Your task to perform on an android device: check the backup settings in the google photos Image 0: 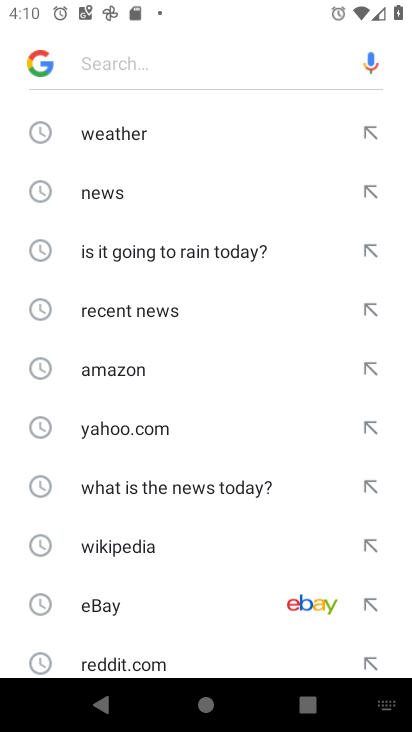
Step 0: press home button
Your task to perform on an android device: check the backup settings in the google photos Image 1: 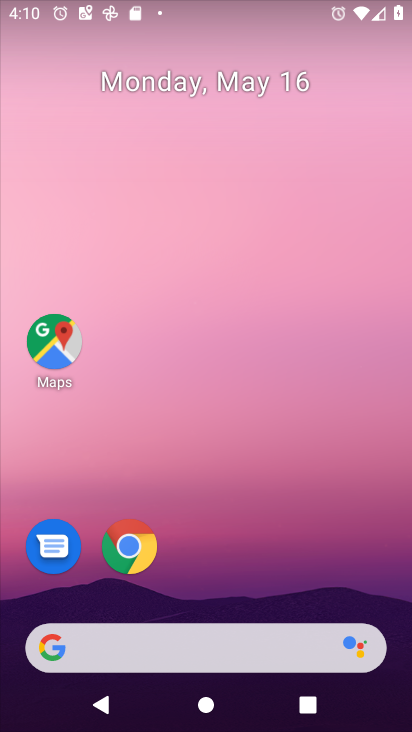
Step 1: drag from (345, 589) to (347, 134)
Your task to perform on an android device: check the backup settings in the google photos Image 2: 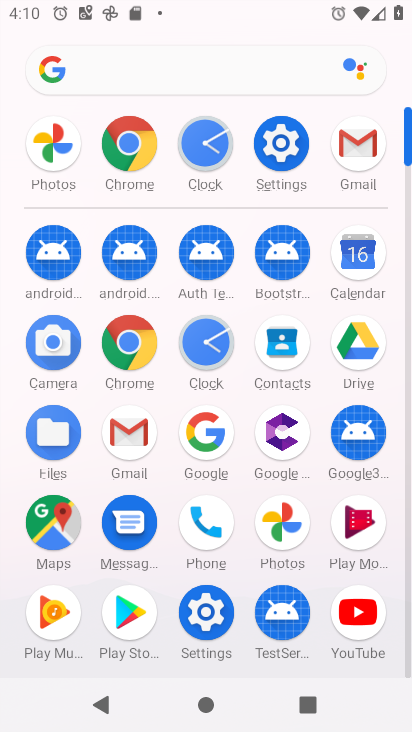
Step 2: click (288, 525)
Your task to perform on an android device: check the backup settings in the google photos Image 3: 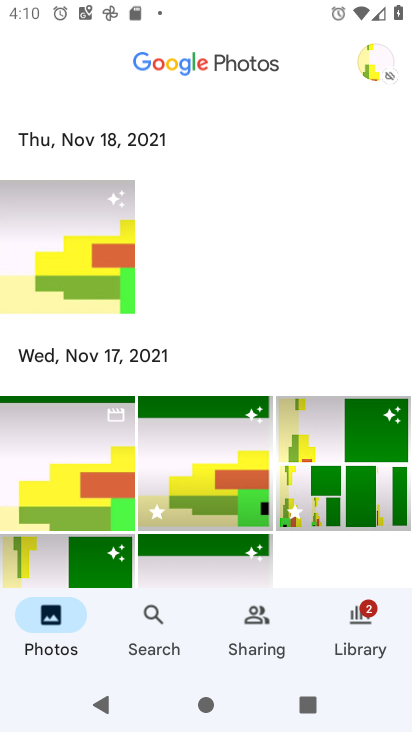
Step 3: click (378, 69)
Your task to perform on an android device: check the backup settings in the google photos Image 4: 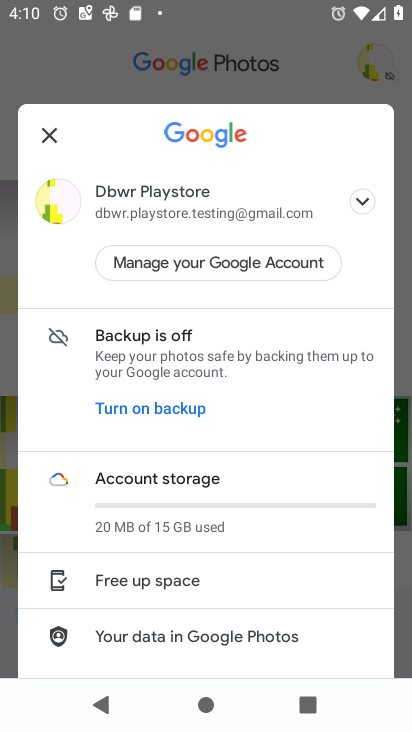
Step 4: drag from (299, 584) to (323, 425)
Your task to perform on an android device: check the backup settings in the google photos Image 5: 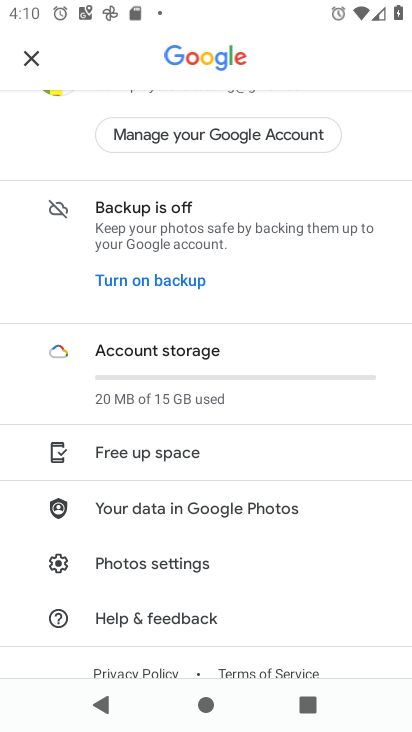
Step 5: drag from (304, 636) to (311, 445)
Your task to perform on an android device: check the backup settings in the google photos Image 6: 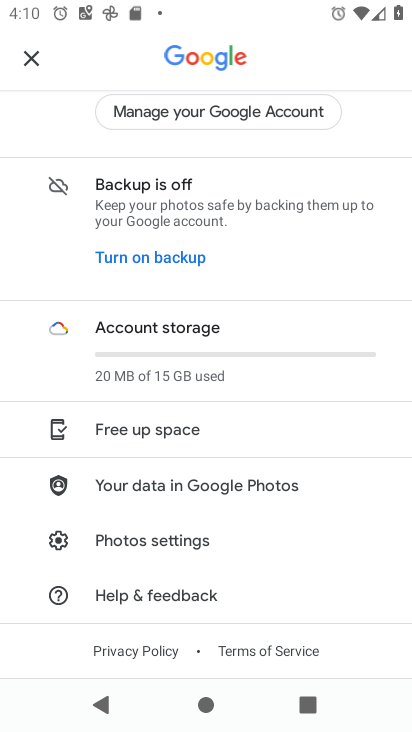
Step 6: click (154, 548)
Your task to perform on an android device: check the backup settings in the google photos Image 7: 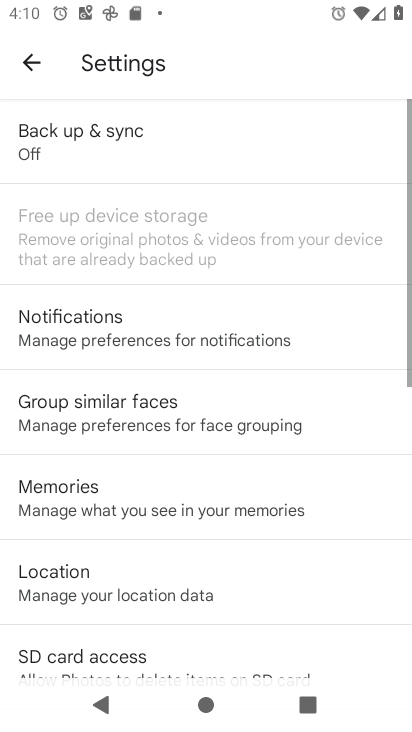
Step 7: drag from (301, 597) to (333, 410)
Your task to perform on an android device: check the backup settings in the google photos Image 8: 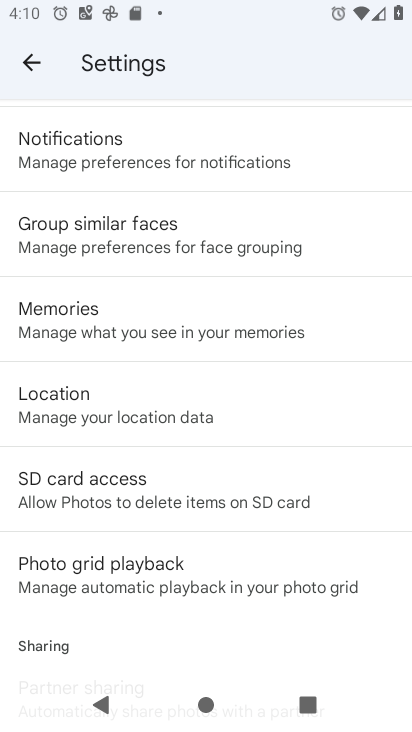
Step 8: drag from (302, 633) to (321, 508)
Your task to perform on an android device: check the backup settings in the google photos Image 9: 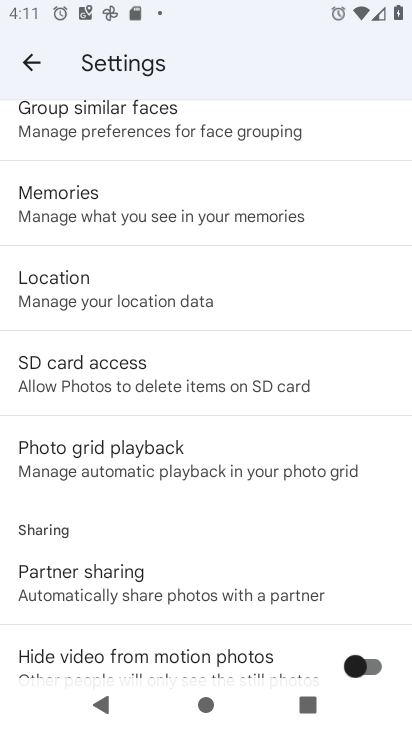
Step 9: drag from (291, 634) to (310, 480)
Your task to perform on an android device: check the backup settings in the google photos Image 10: 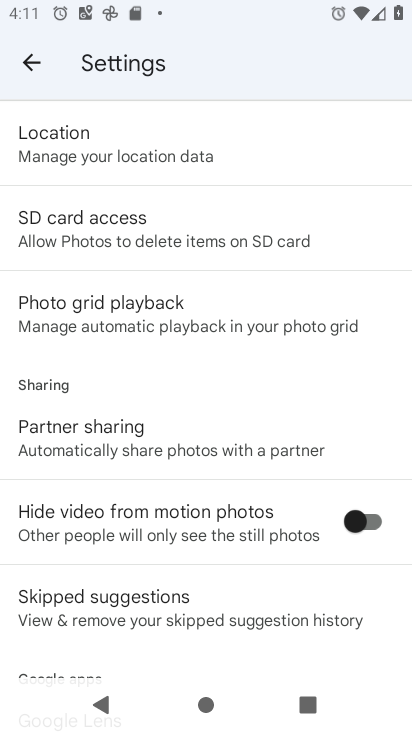
Step 10: drag from (280, 647) to (299, 421)
Your task to perform on an android device: check the backup settings in the google photos Image 11: 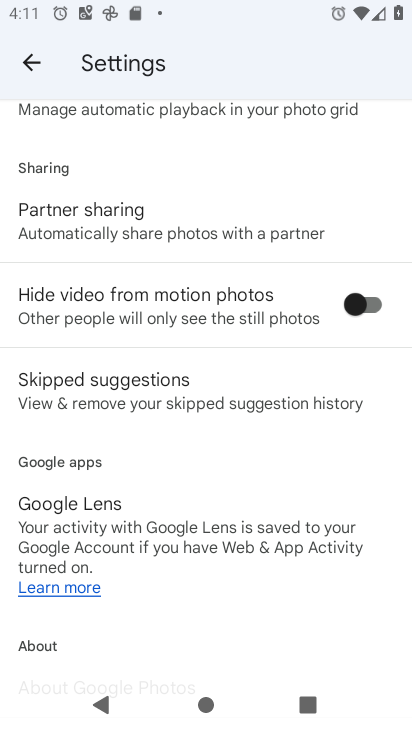
Step 11: drag from (318, 198) to (295, 450)
Your task to perform on an android device: check the backup settings in the google photos Image 12: 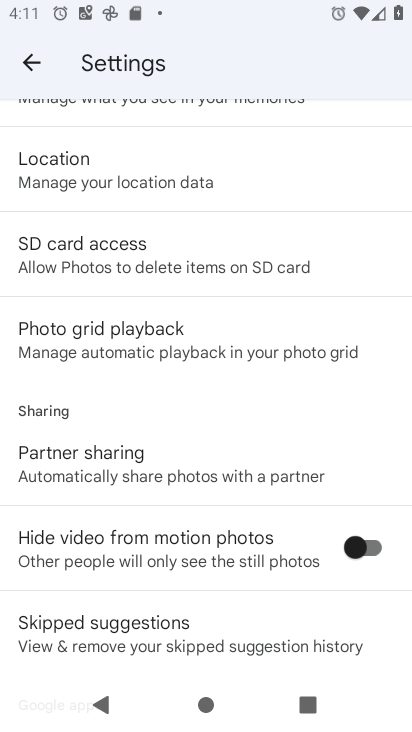
Step 12: drag from (318, 227) to (320, 406)
Your task to perform on an android device: check the backup settings in the google photos Image 13: 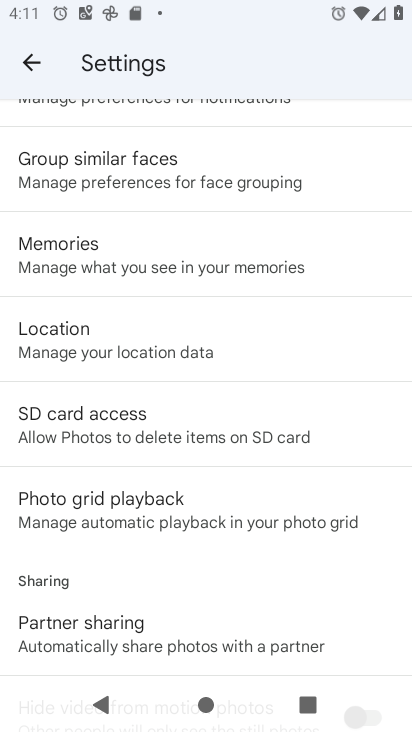
Step 13: drag from (353, 217) to (345, 385)
Your task to perform on an android device: check the backup settings in the google photos Image 14: 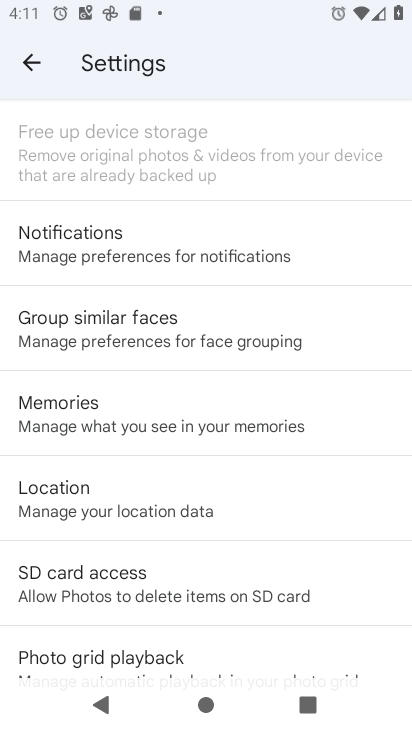
Step 14: drag from (340, 229) to (345, 427)
Your task to perform on an android device: check the backup settings in the google photos Image 15: 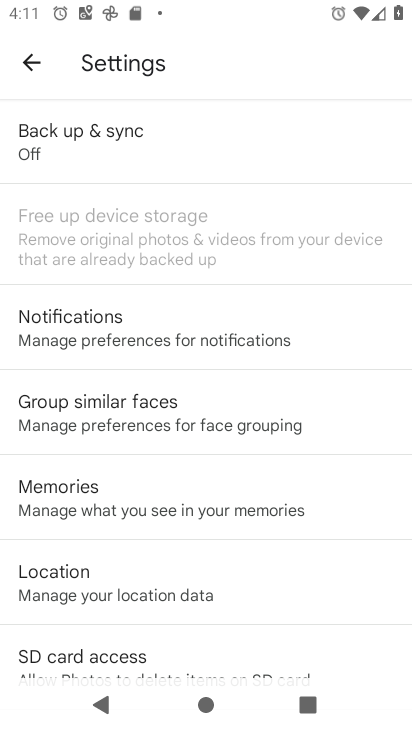
Step 15: click (144, 156)
Your task to perform on an android device: check the backup settings in the google photos Image 16: 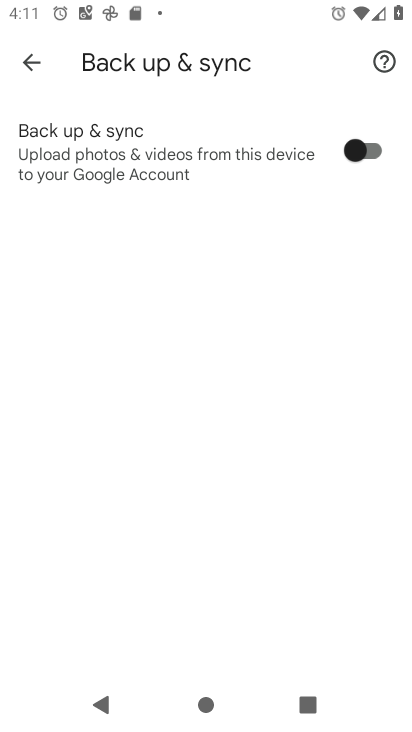
Step 16: task complete